Your task to perform on an android device: Play the last video I watched on Youtube Image 0: 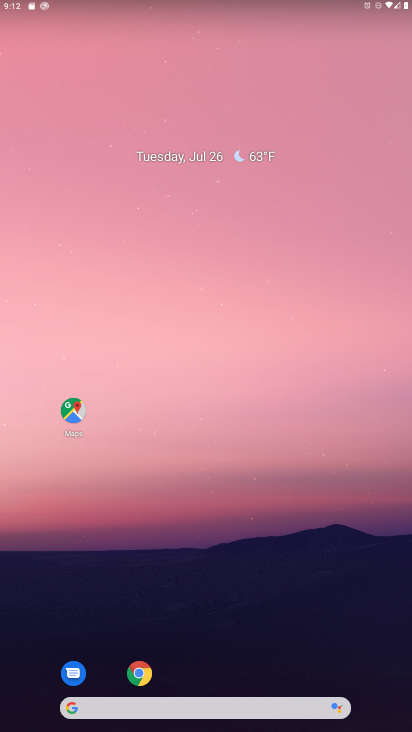
Step 0: drag from (301, 642) to (108, 49)
Your task to perform on an android device: Play the last video I watched on Youtube Image 1: 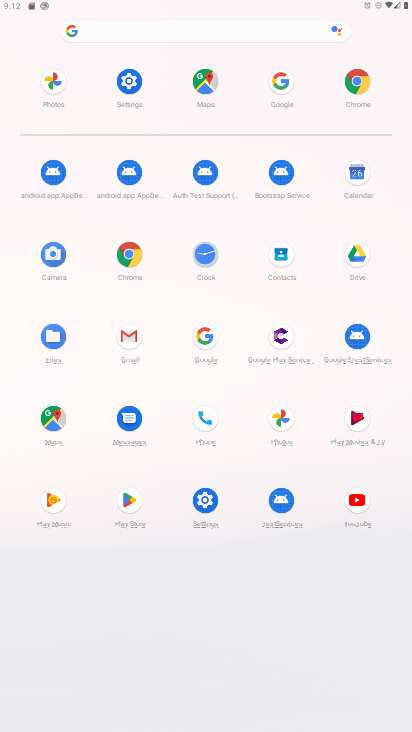
Step 1: click (336, 511)
Your task to perform on an android device: Play the last video I watched on Youtube Image 2: 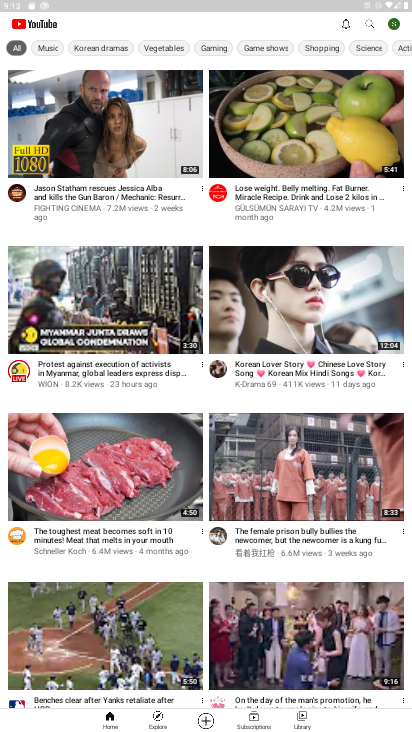
Step 2: task complete